Your task to perform on an android device: Go to location settings Image 0: 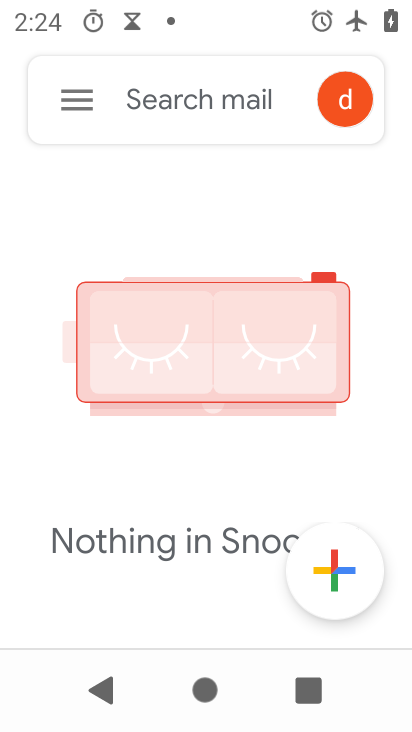
Step 0: press home button
Your task to perform on an android device: Go to location settings Image 1: 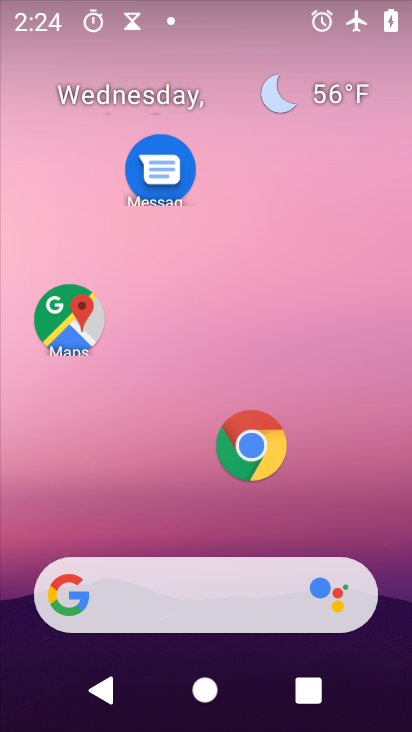
Step 1: drag from (229, 487) to (277, 127)
Your task to perform on an android device: Go to location settings Image 2: 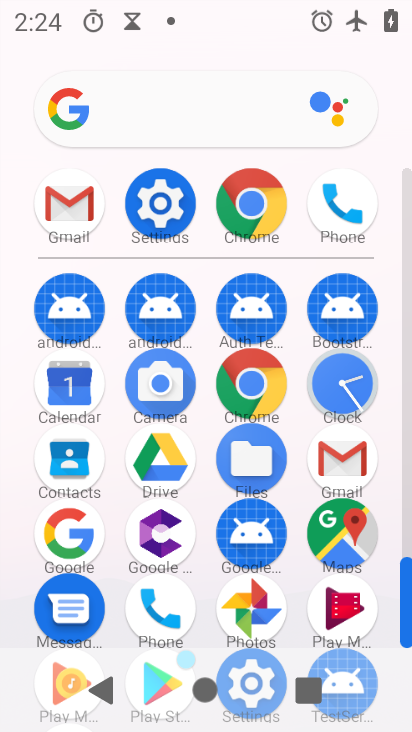
Step 2: drag from (205, 275) to (194, 108)
Your task to perform on an android device: Go to location settings Image 3: 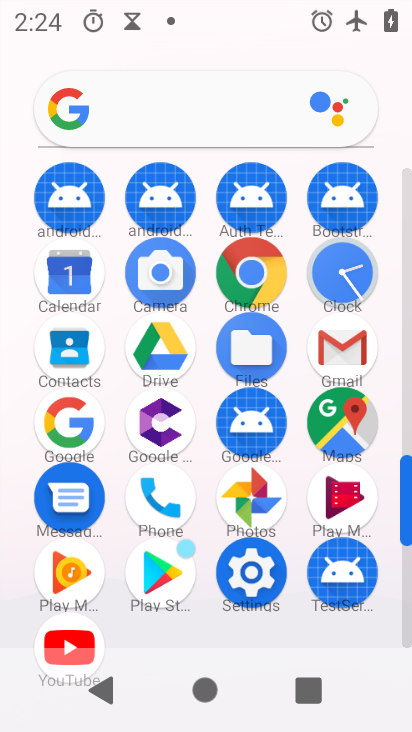
Step 3: click (247, 574)
Your task to perform on an android device: Go to location settings Image 4: 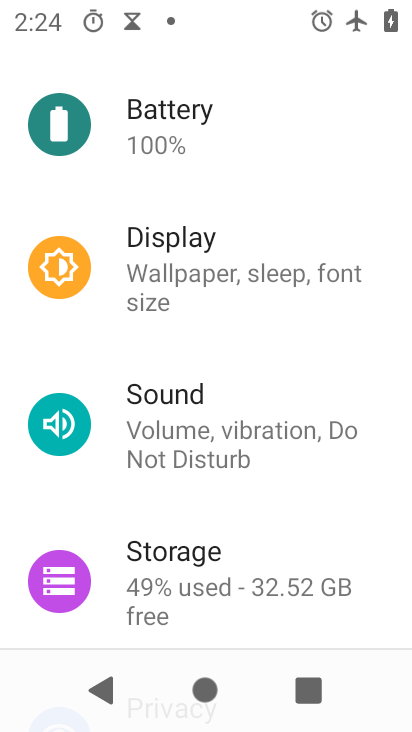
Step 4: drag from (274, 494) to (277, 141)
Your task to perform on an android device: Go to location settings Image 5: 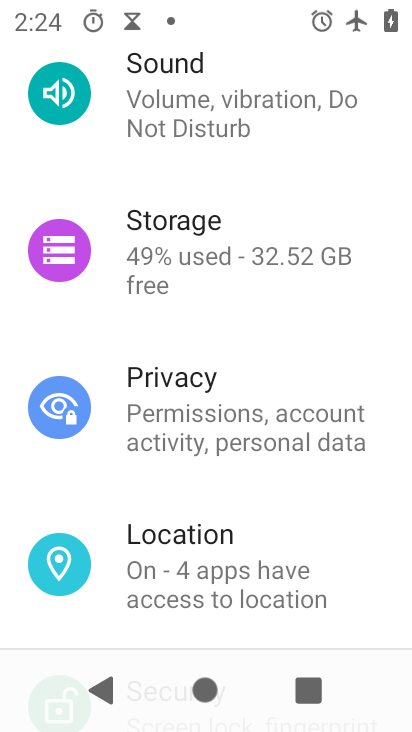
Step 5: click (166, 577)
Your task to perform on an android device: Go to location settings Image 6: 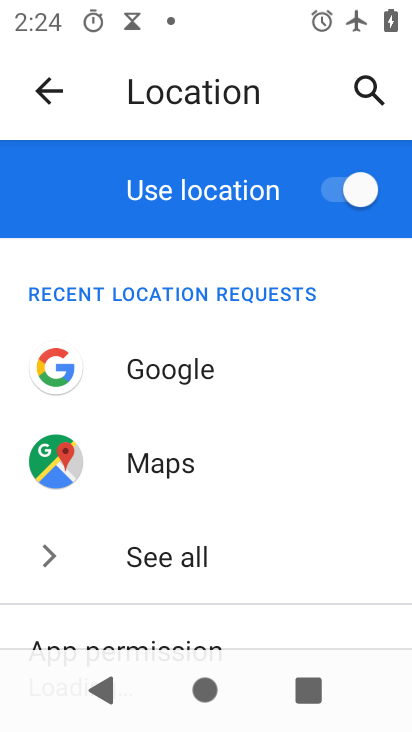
Step 6: drag from (183, 528) to (228, 149)
Your task to perform on an android device: Go to location settings Image 7: 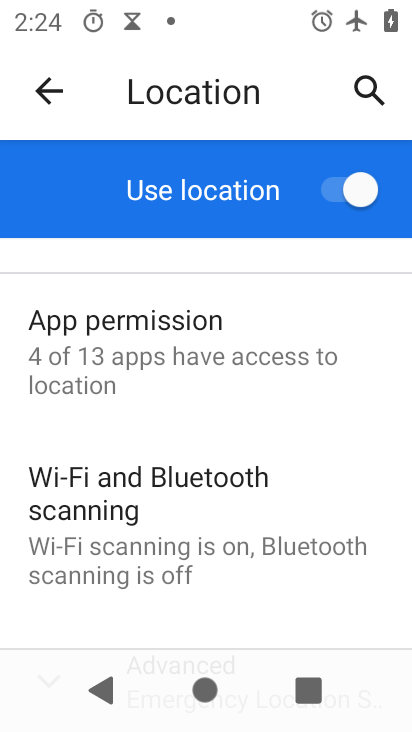
Step 7: drag from (245, 339) to (298, 617)
Your task to perform on an android device: Go to location settings Image 8: 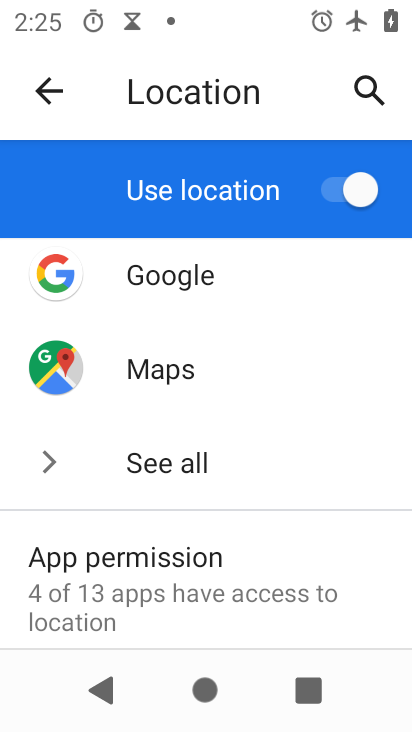
Step 8: click (136, 520)
Your task to perform on an android device: Go to location settings Image 9: 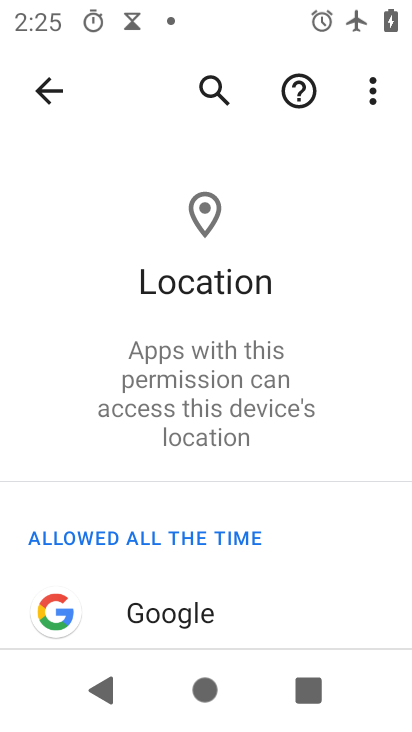
Step 9: task complete